Your task to perform on an android device: delete location history Image 0: 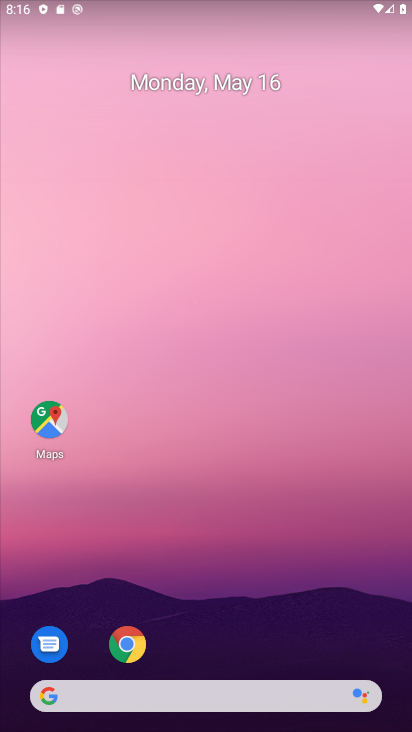
Step 0: drag from (279, 630) to (275, 18)
Your task to perform on an android device: delete location history Image 1: 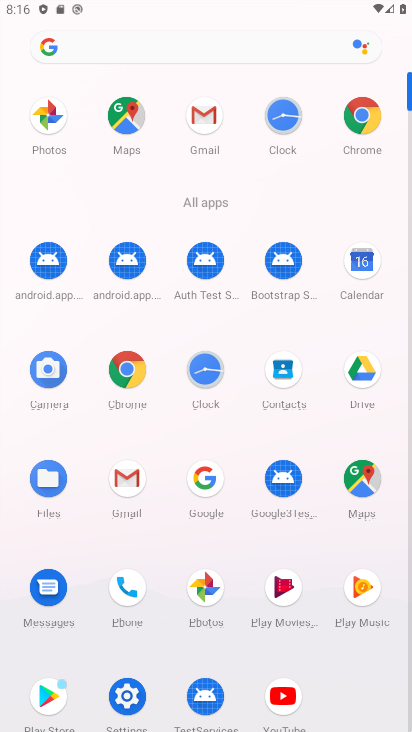
Step 1: click (129, 691)
Your task to perform on an android device: delete location history Image 2: 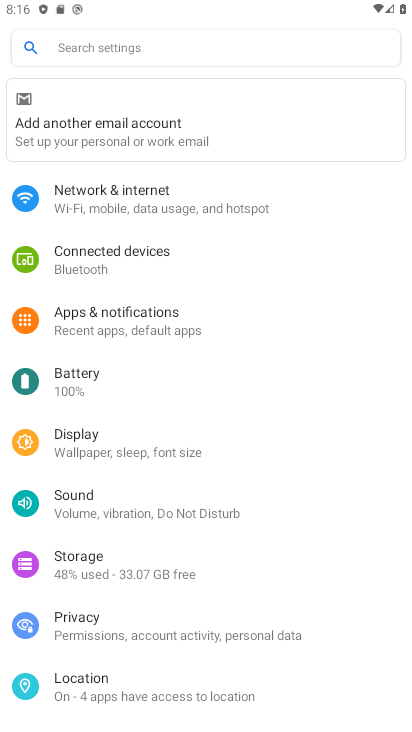
Step 2: click (101, 680)
Your task to perform on an android device: delete location history Image 3: 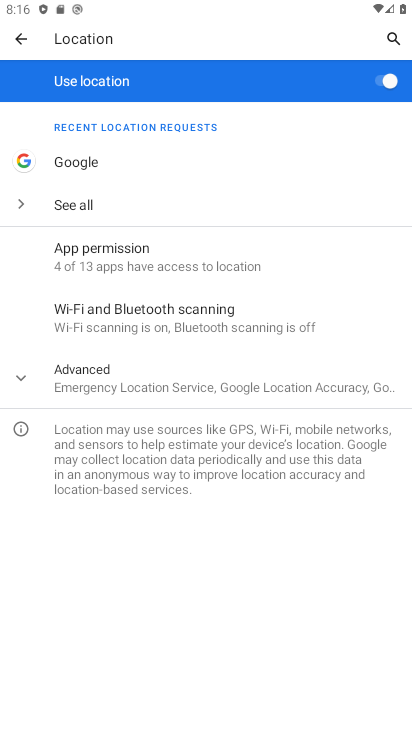
Step 3: click (108, 393)
Your task to perform on an android device: delete location history Image 4: 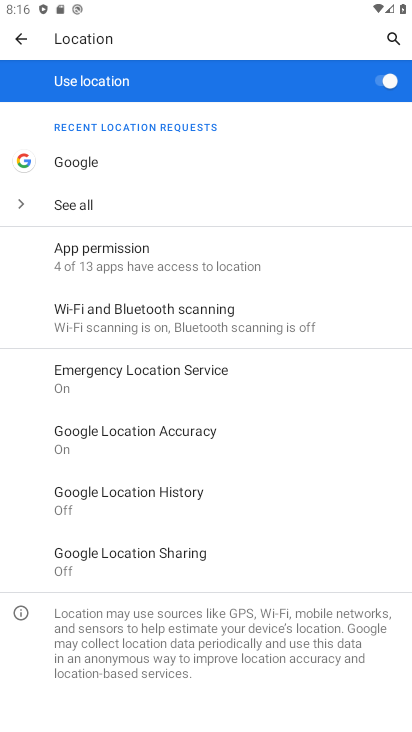
Step 4: click (129, 495)
Your task to perform on an android device: delete location history Image 5: 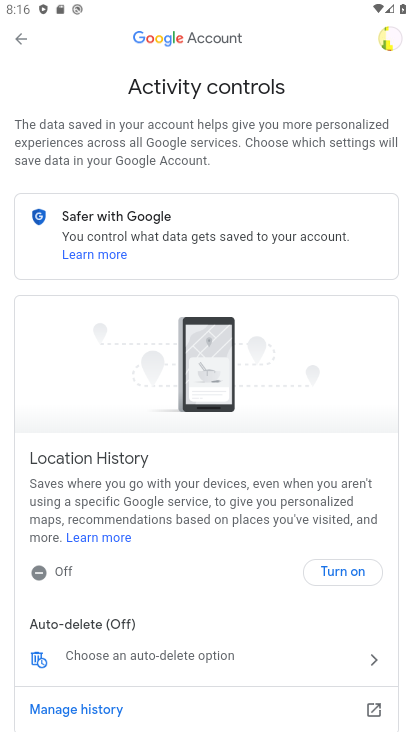
Step 5: click (44, 653)
Your task to perform on an android device: delete location history Image 6: 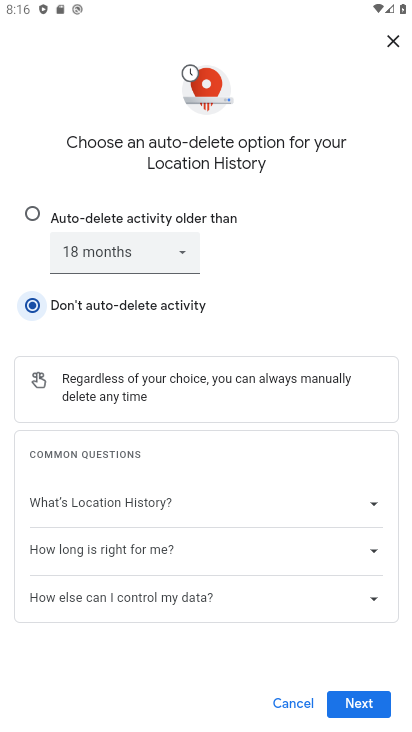
Step 6: click (351, 701)
Your task to perform on an android device: delete location history Image 7: 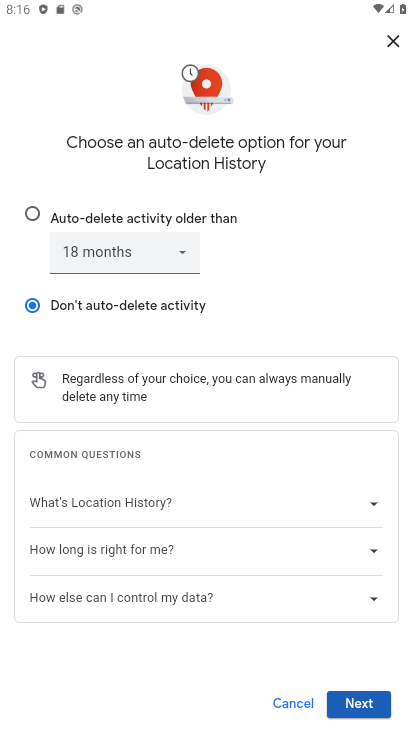
Step 7: click (354, 704)
Your task to perform on an android device: delete location history Image 8: 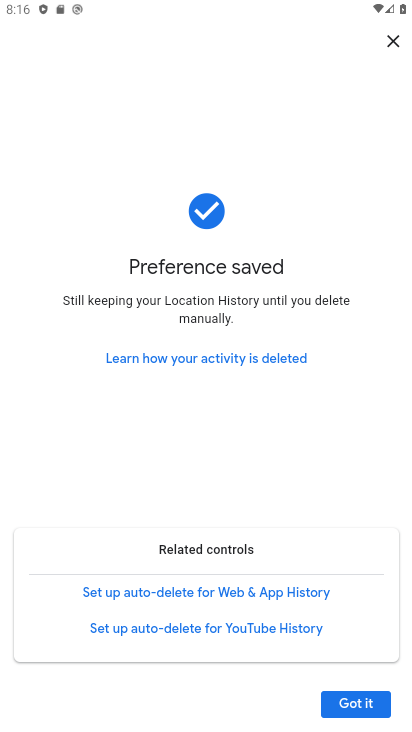
Step 8: task complete